Your task to perform on an android device: delete location history Image 0: 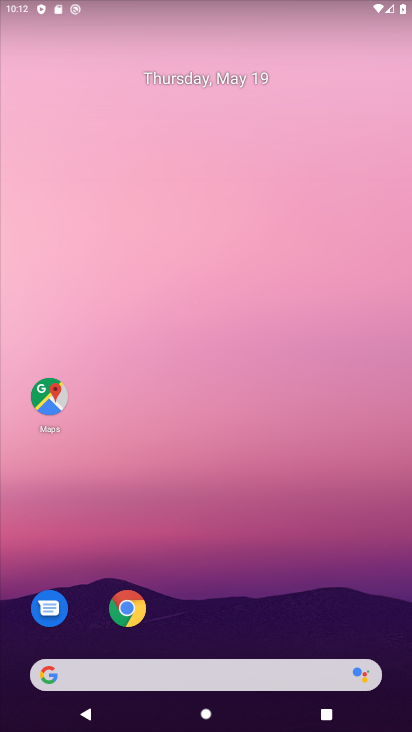
Step 0: drag from (390, 655) to (339, 445)
Your task to perform on an android device: delete location history Image 1: 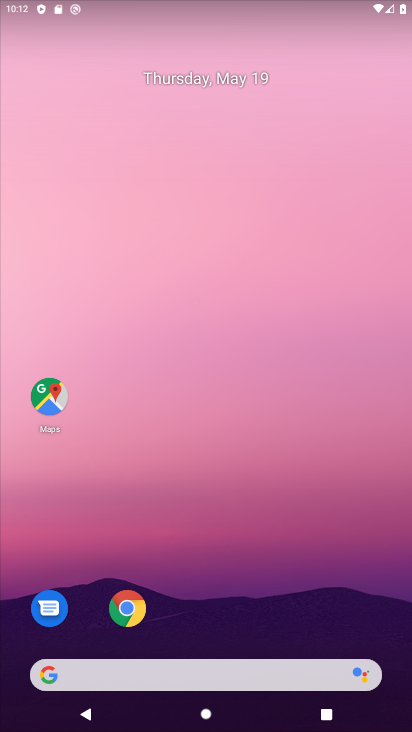
Step 1: press home button
Your task to perform on an android device: delete location history Image 2: 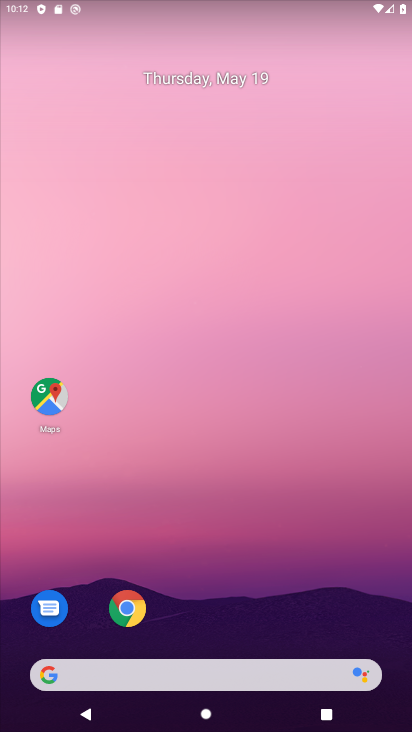
Step 2: click (41, 397)
Your task to perform on an android device: delete location history Image 3: 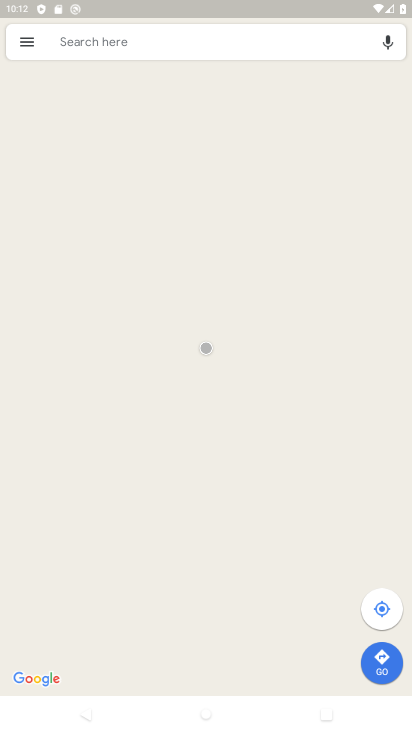
Step 3: click (19, 43)
Your task to perform on an android device: delete location history Image 4: 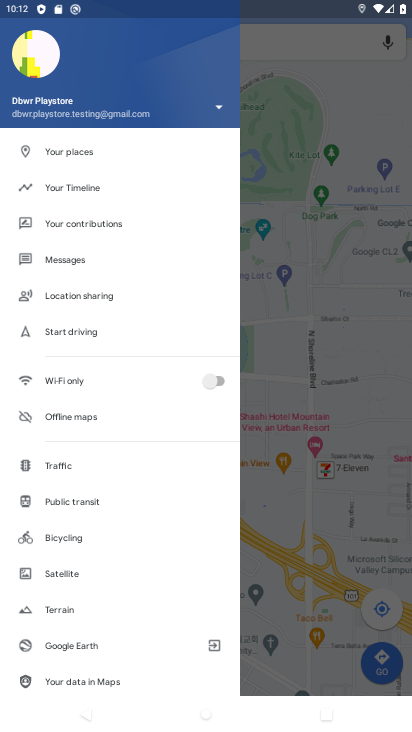
Step 4: click (63, 184)
Your task to perform on an android device: delete location history Image 5: 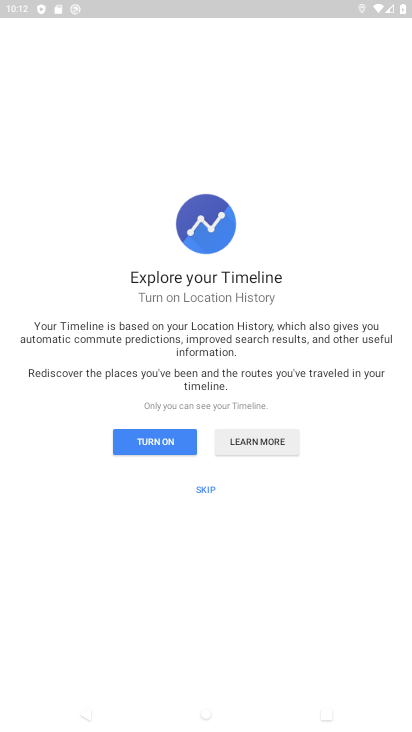
Step 5: click (157, 441)
Your task to perform on an android device: delete location history Image 6: 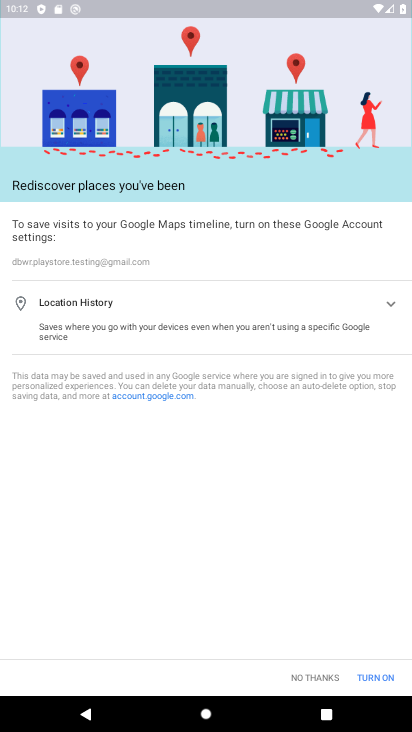
Step 6: click (372, 675)
Your task to perform on an android device: delete location history Image 7: 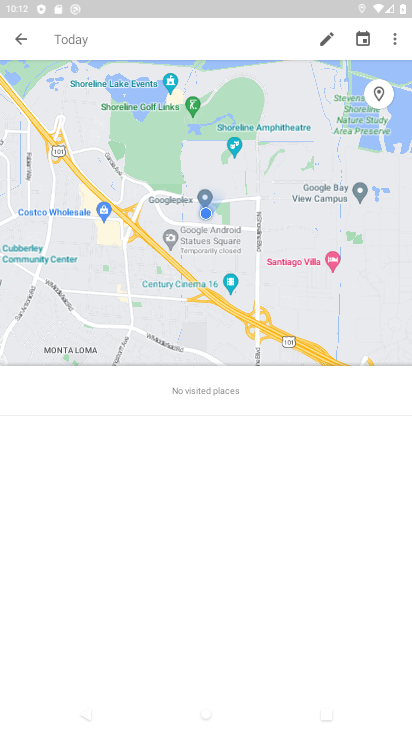
Step 7: click (393, 40)
Your task to perform on an android device: delete location history Image 8: 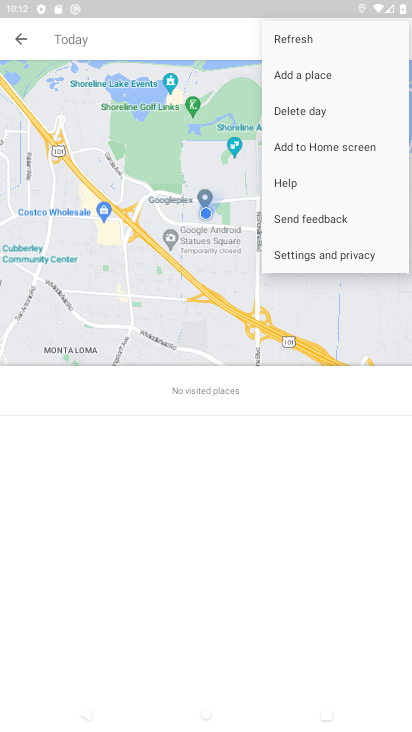
Step 8: click (326, 255)
Your task to perform on an android device: delete location history Image 9: 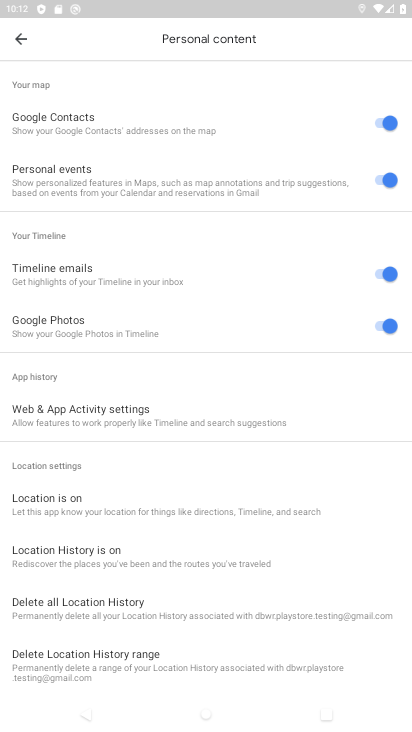
Step 9: click (63, 604)
Your task to perform on an android device: delete location history Image 10: 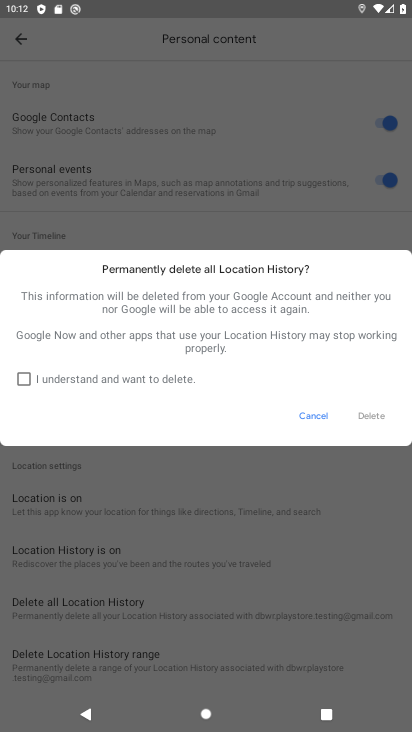
Step 10: click (20, 375)
Your task to perform on an android device: delete location history Image 11: 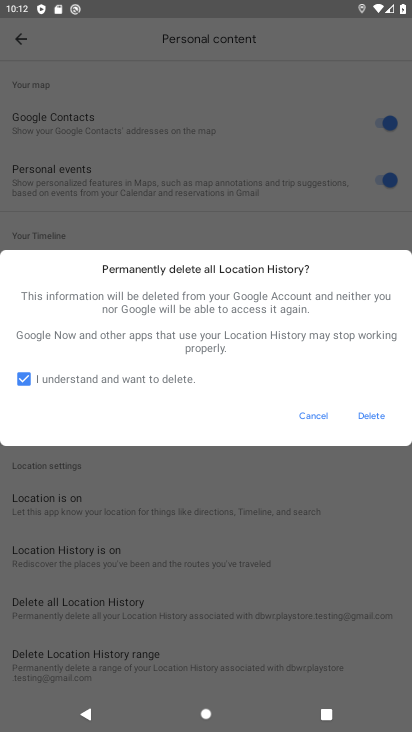
Step 11: click (369, 410)
Your task to perform on an android device: delete location history Image 12: 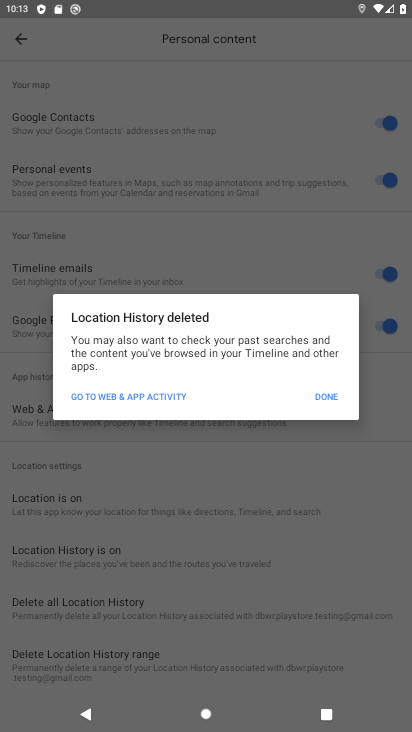
Step 12: click (328, 393)
Your task to perform on an android device: delete location history Image 13: 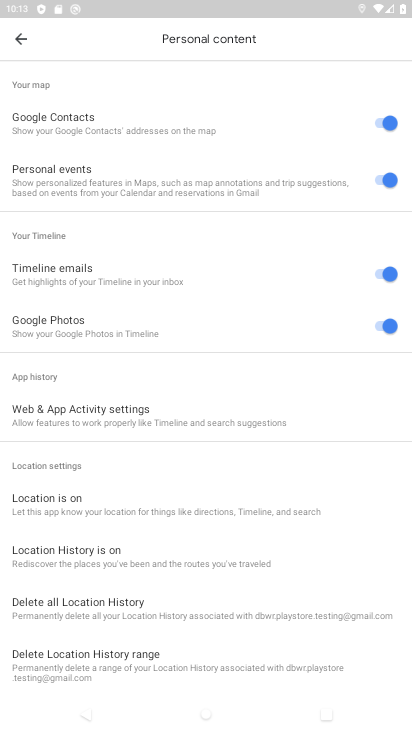
Step 13: task complete